Your task to perform on an android device: Go to network settings Image 0: 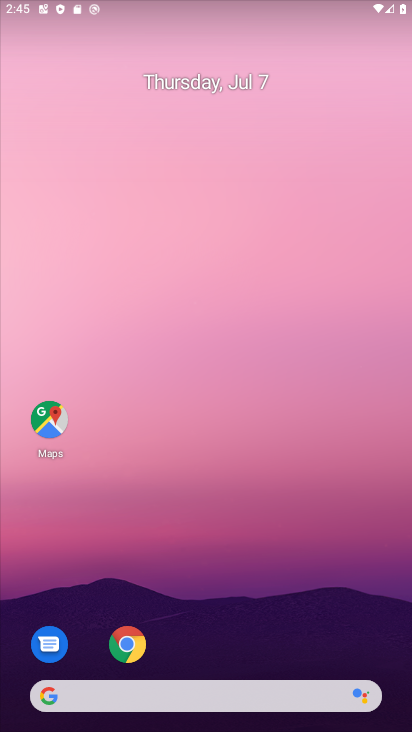
Step 0: press home button
Your task to perform on an android device: Go to network settings Image 1: 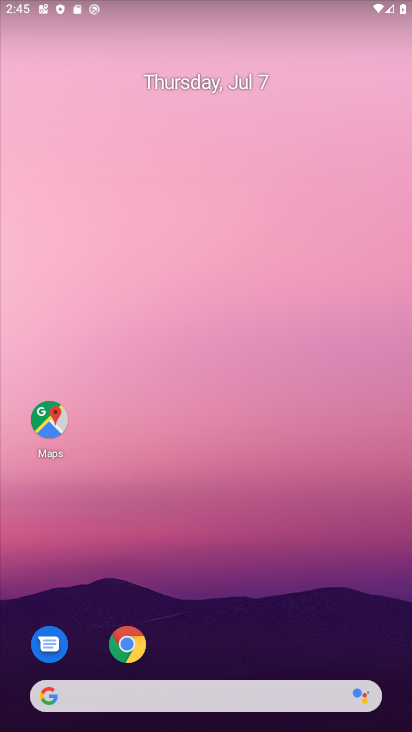
Step 1: drag from (325, 589) to (299, 131)
Your task to perform on an android device: Go to network settings Image 2: 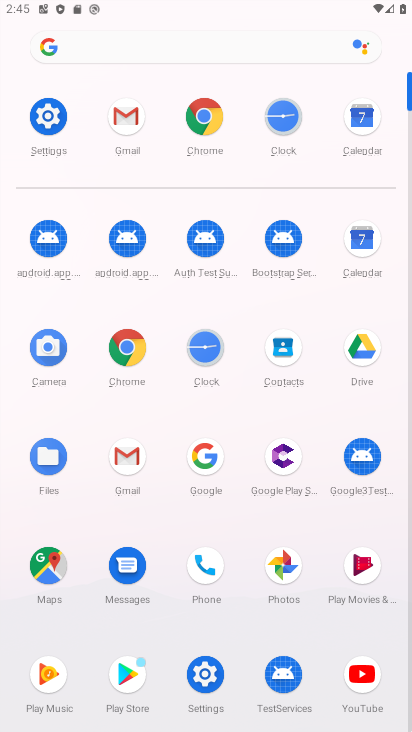
Step 2: click (38, 120)
Your task to perform on an android device: Go to network settings Image 3: 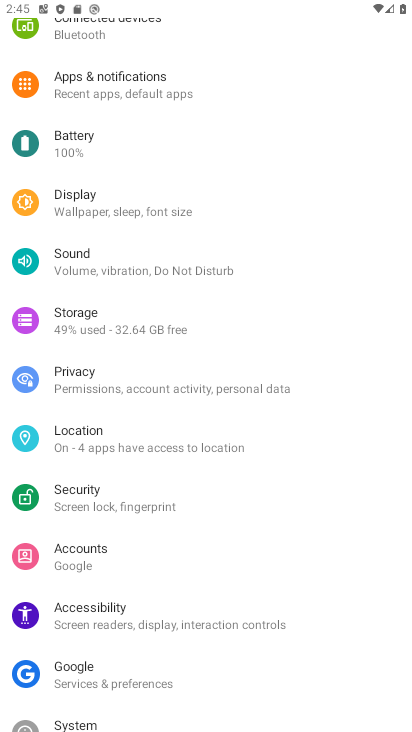
Step 3: drag from (245, 94) to (238, 434)
Your task to perform on an android device: Go to network settings Image 4: 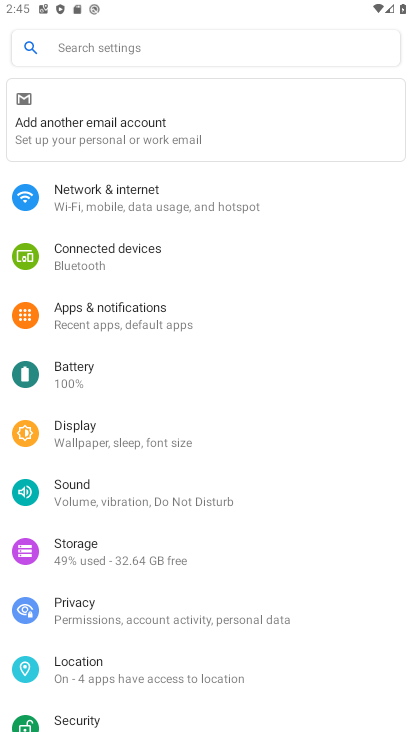
Step 4: click (115, 195)
Your task to perform on an android device: Go to network settings Image 5: 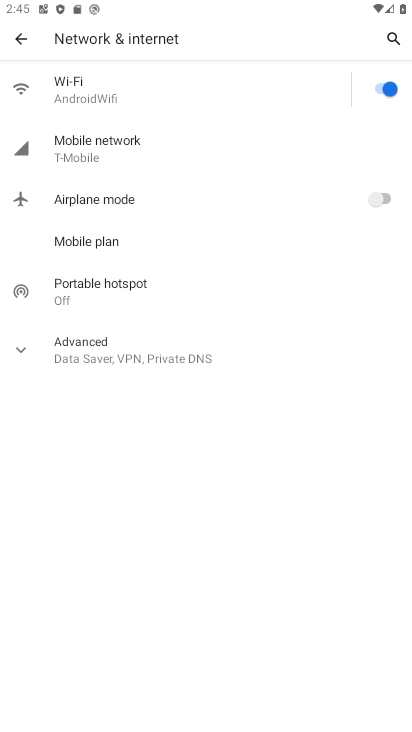
Step 5: task complete